Your task to perform on an android device: all mails in gmail Image 0: 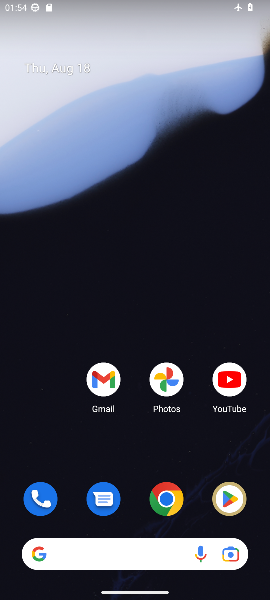
Step 0: click (98, 380)
Your task to perform on an android device: all mails in gmail Image 1: 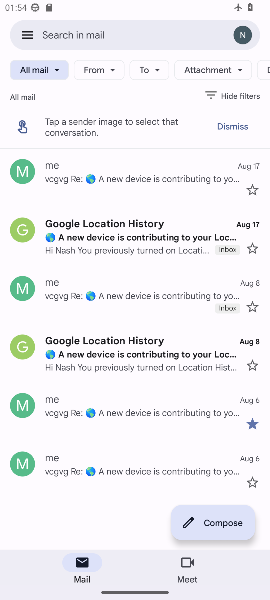
Step 1: task complete